Your task to perform on an android device: Open display settings Image 0: 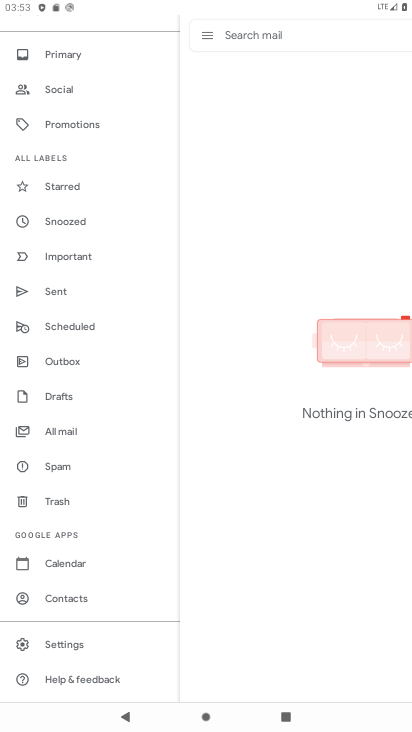
Step 0: press home button
Your task to perform on an android device: Open display settings Image 1: 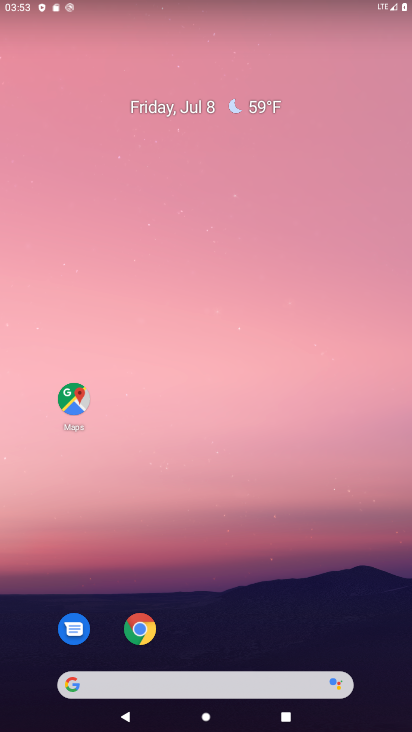
Step 1: drag from (208, 639) to (237, 11)
Your task to perform on an android device: Open display settings Image 2: 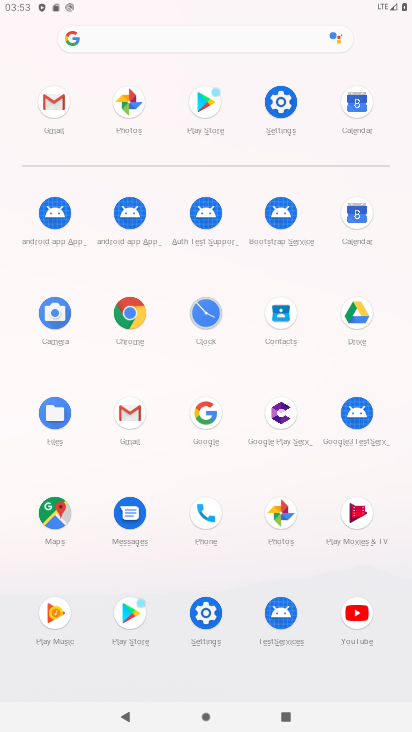
Step 2: click (279, 95)
Your task to perform on an android device: Open display settings Image 3: 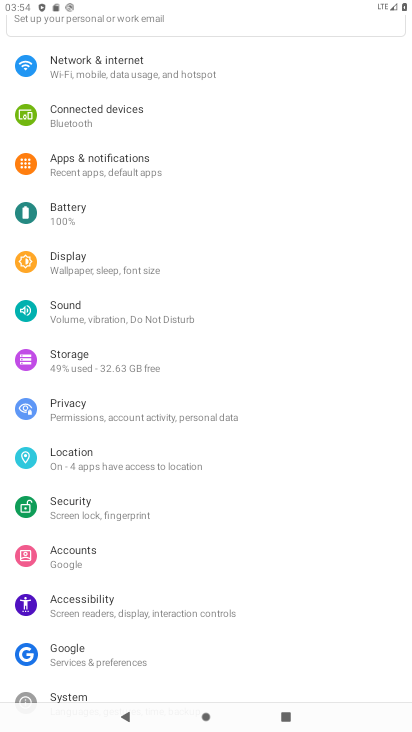
Step 3: click (92, 253)
Your task to perform on an android device: Open display settings Image 4: 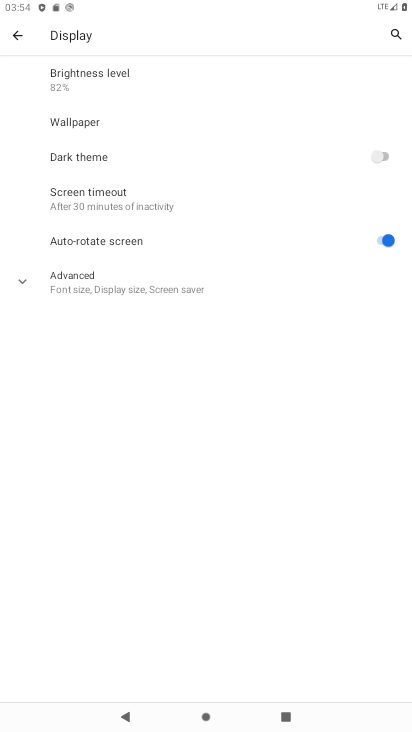
Step 4: click (30, 285)
Your task to perform on an android device: Open display settings Image 5: 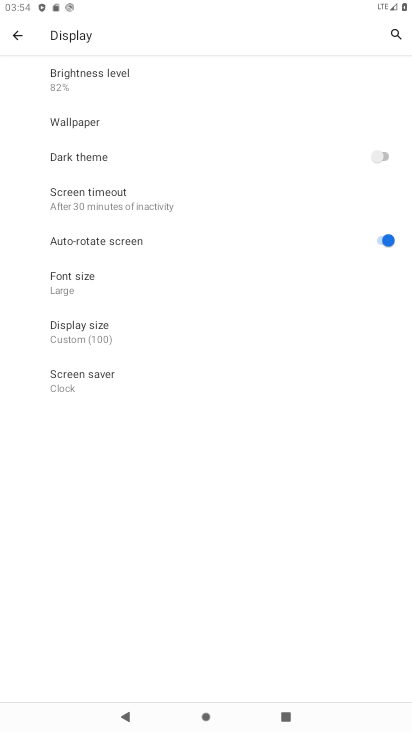
Step 5: task complete